Your task to perform on an android device: turn on improve location accuracy Image 0: 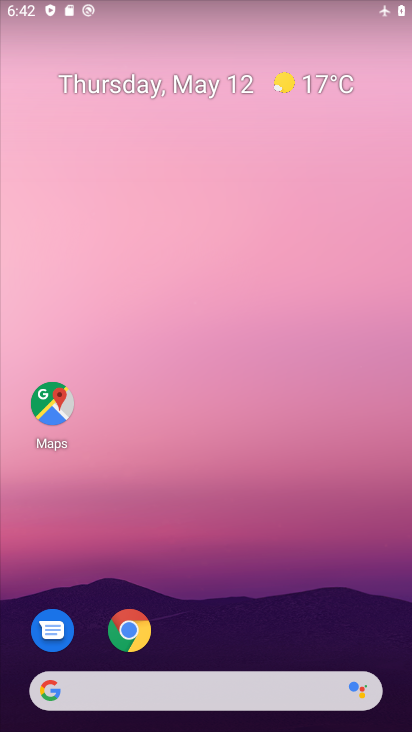
Step 0: drag from (341, 639) to (253, 151)
Your task to perform on an android device: turn on improve location accuracy Image 1: 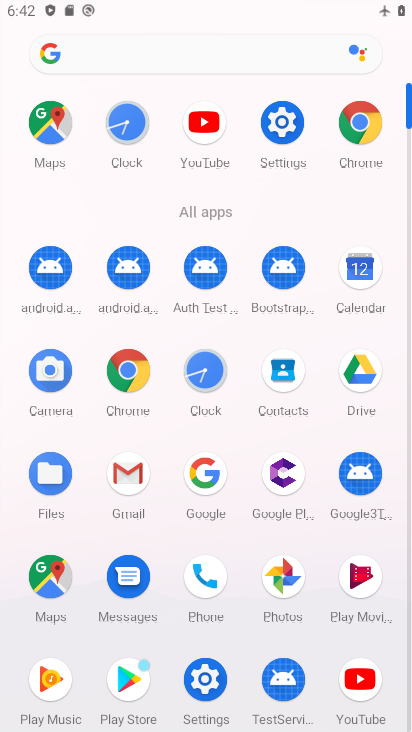
Step 1: click (209, 676)
Your task to perform on an android device: turn on improve location accuracy Image 2: 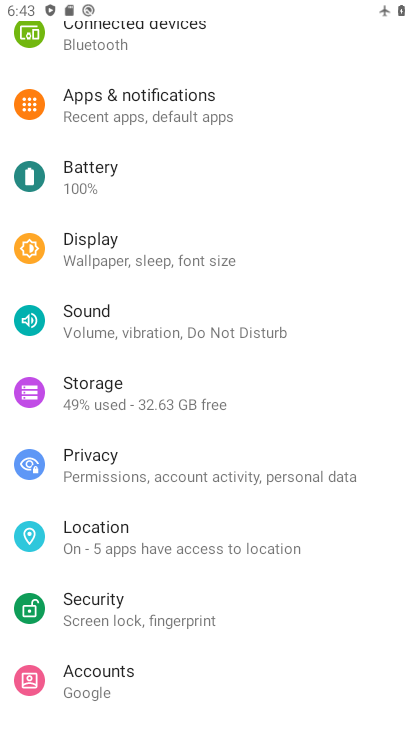
Step 2: click (141, 544)
Your task to perform on an android device: turn on improve location accuracy Image 3: 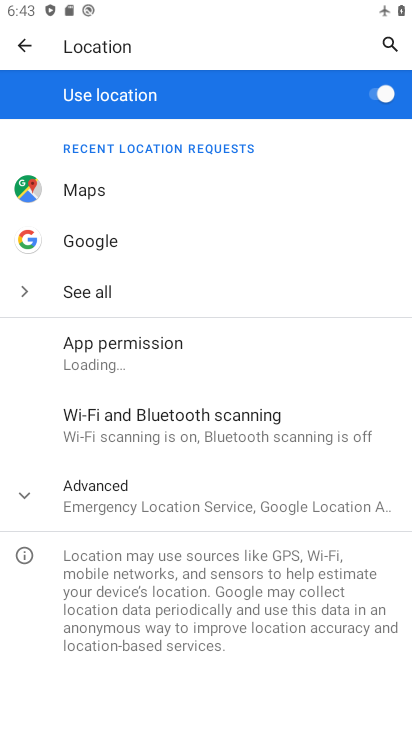
Step 3: click (170, 497)
Your task to perform on an android device: turn on improve location accuracy Image 4: 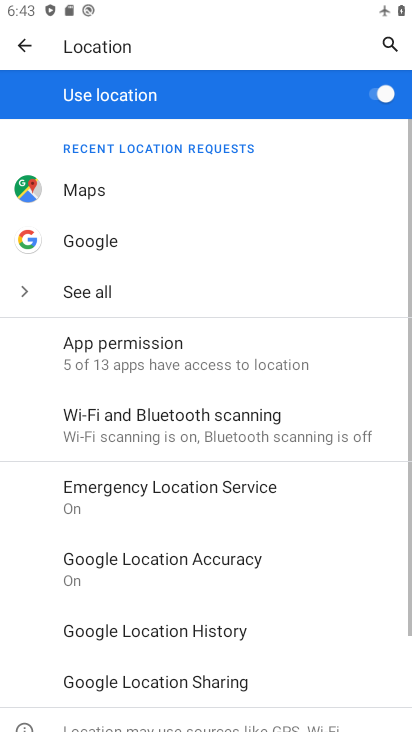
Step 4: click (173, 563)
Your task to perform on an android device: turn on improve location accuracy Image 5: 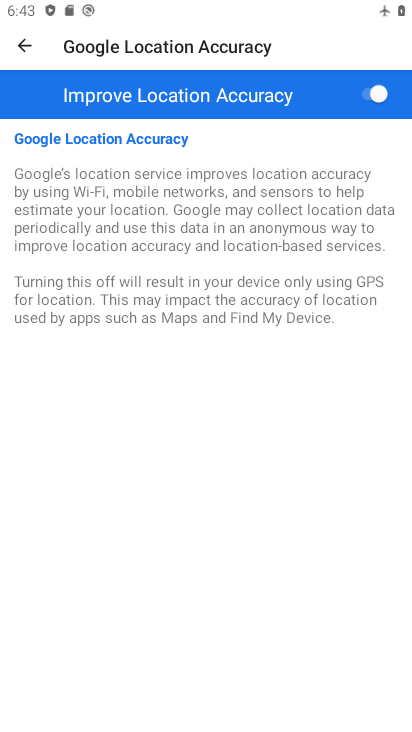
Step 5: task complete